Your task to perform on an android device: turn off location history Image 0: 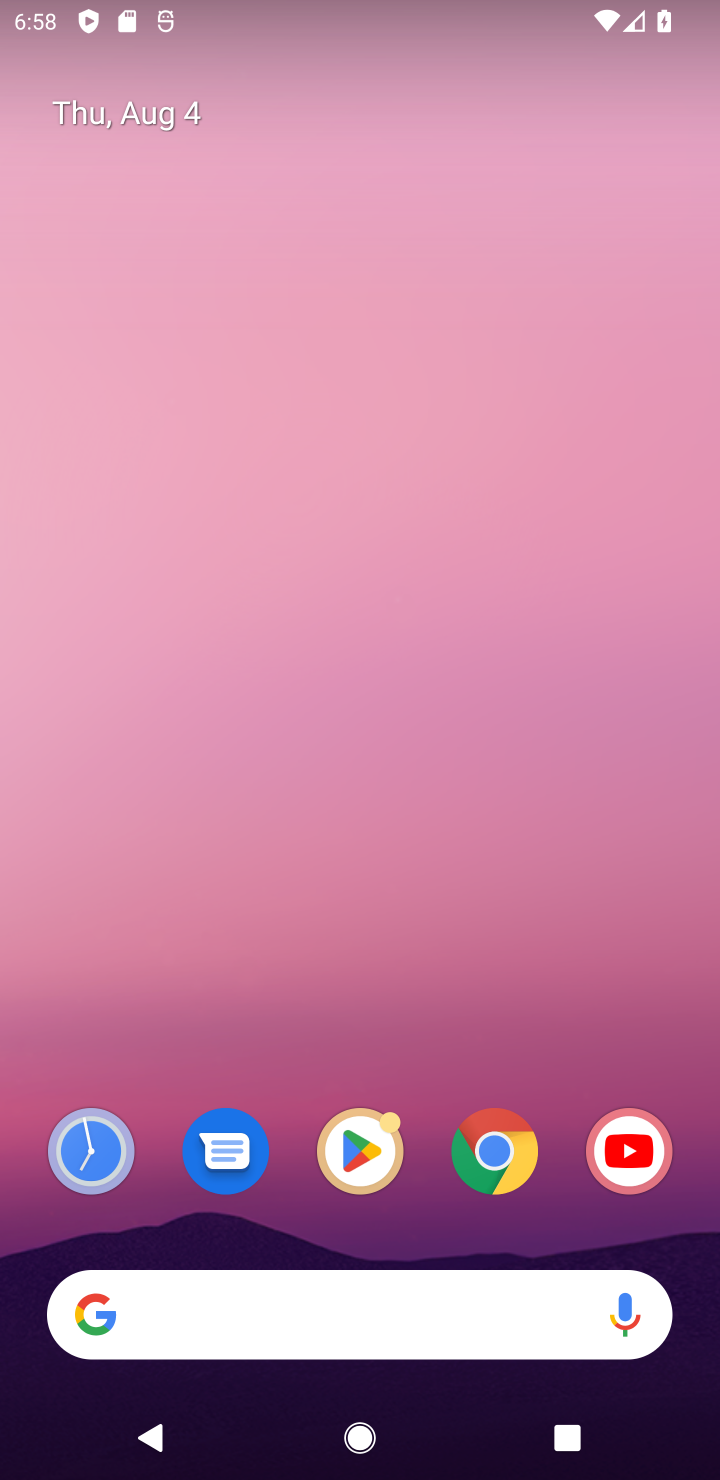
Step 0: drag from (550, 1086) to (482, 153)
Your task to perform on an android device: turn off location history Image 1: 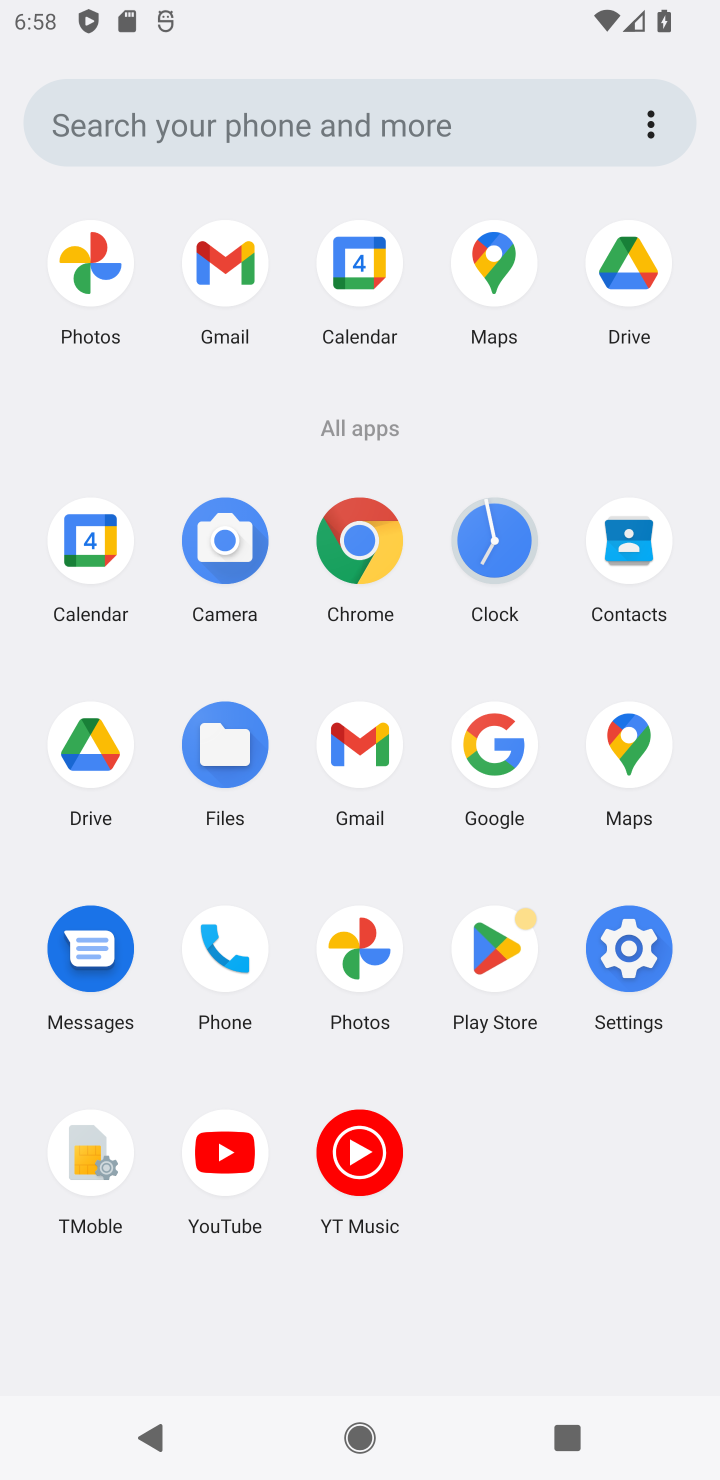
Step 1: click (495, 258)
Your task to perform on an android device: turn off location history Image 2: 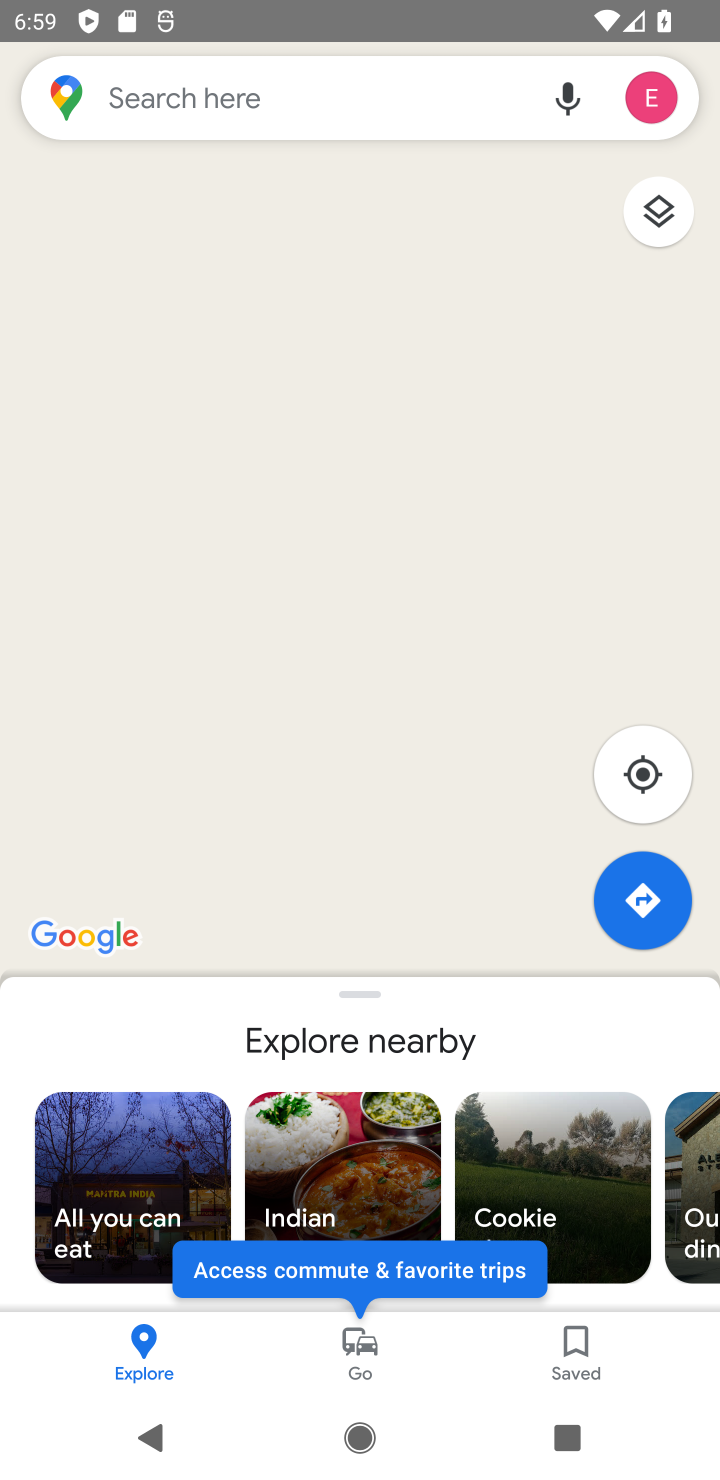
Step 2: click (668, 103)
Your task to perform on an android device: turn off location history Image 3: 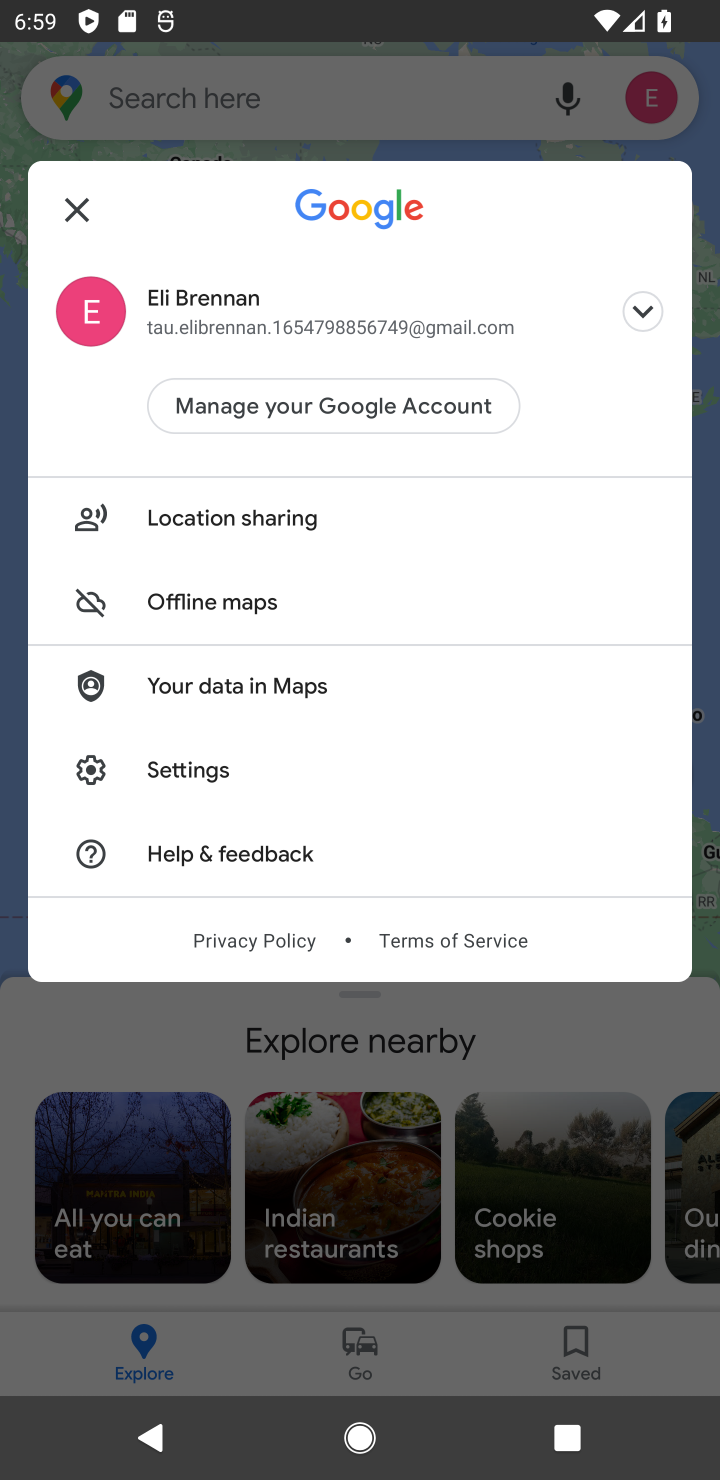
Step 3: click (235, 777)
Your task to perform on an android device: turn off location history Image 4: 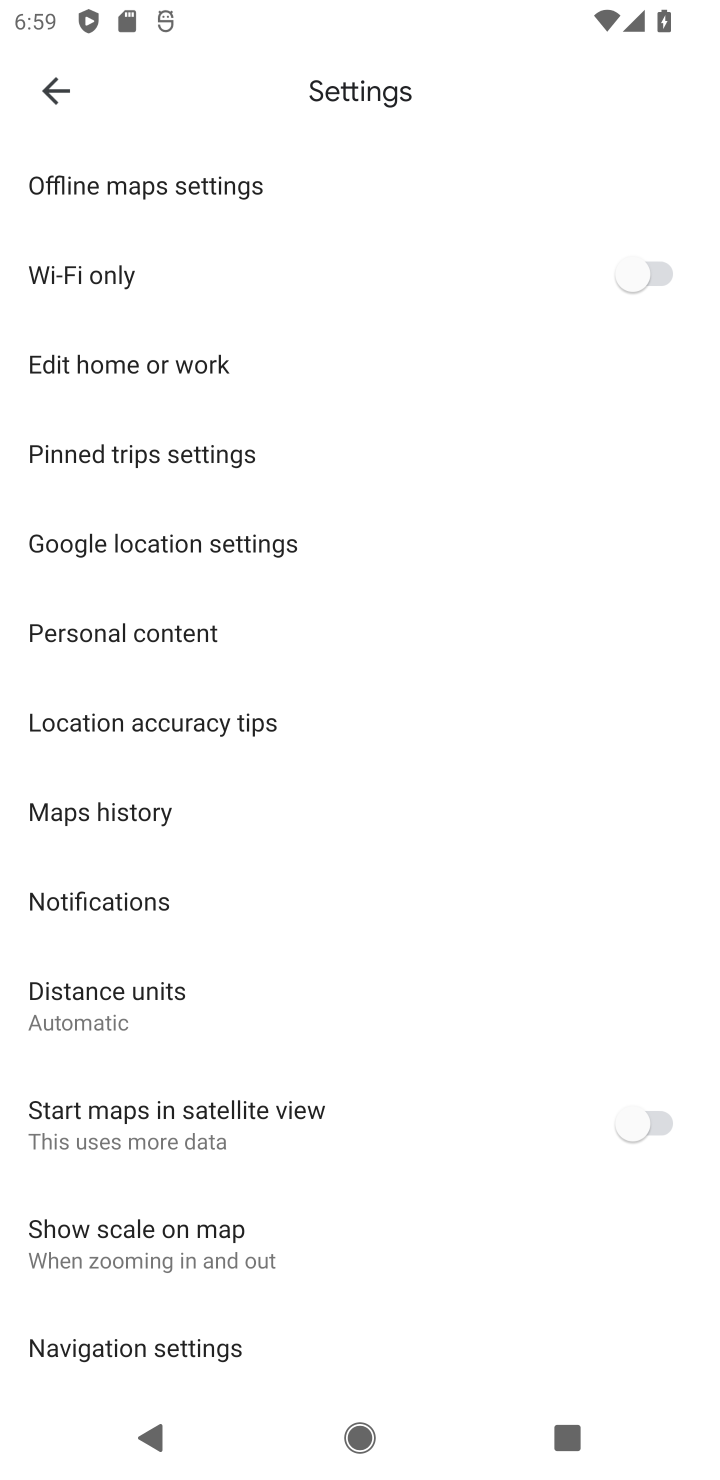
Step 4: task complete